Your task to perform on an android device: Open internet settings Image 0: 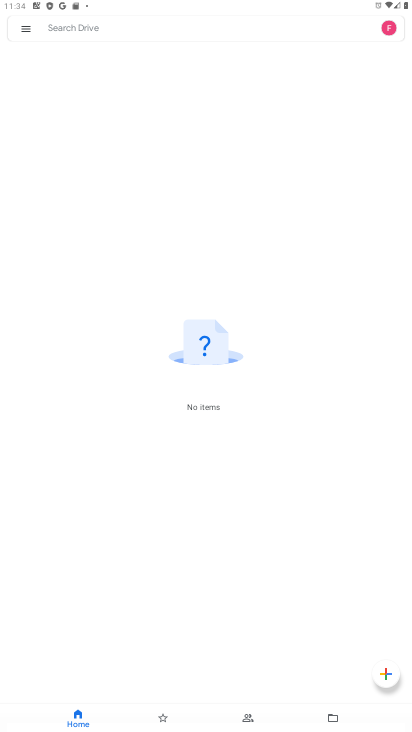
Step 0: press home button
Your task to perform on an android device: Open internet settings Image 1: 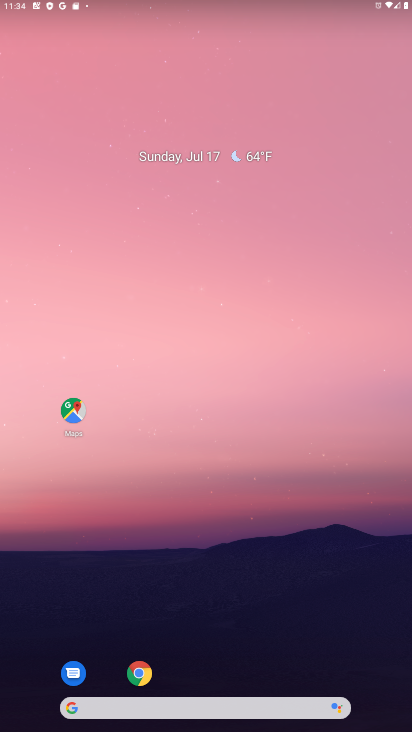
Step 1: drag from (215, 626) to (218, 82)
Your task to perform on an android device: Open internet settings Image 2: 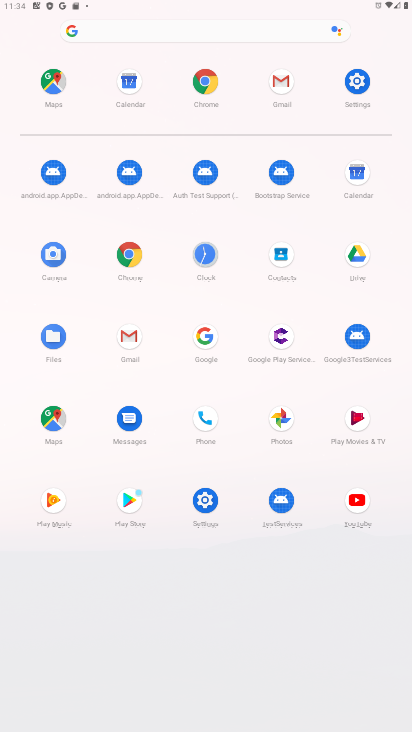
Step 2: click (356, 75)
Your task to perform on an android device: Open internet settings Image 3: 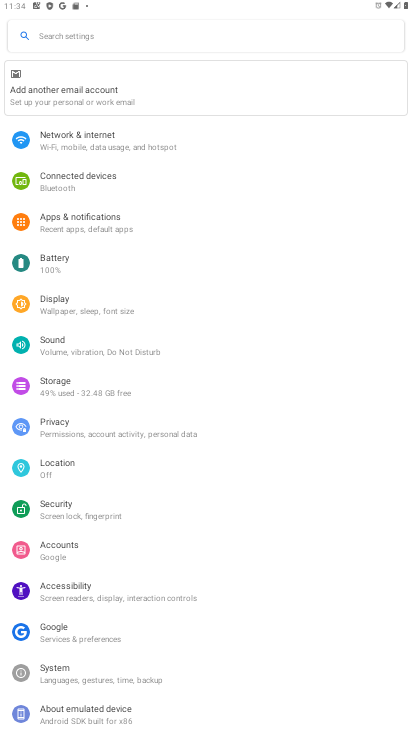
Step 3: click (101, 135)
Your task to perform on an android device: Open internet settings Image 4: 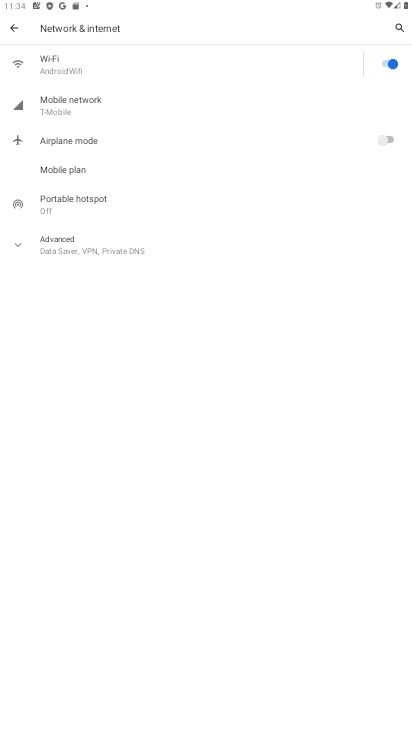
Step 4: click (66, 61)
Your task to perform on an android device: Open internet settings Image 5: 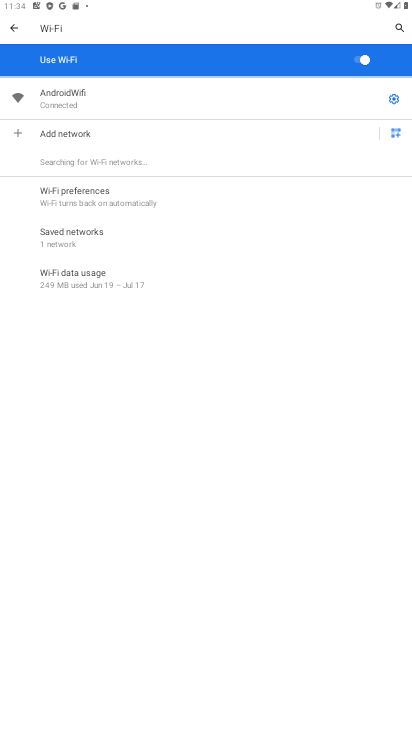
Step 5: click (181, 97)
Your task to perform on an android device: Open internet settings Image 6: 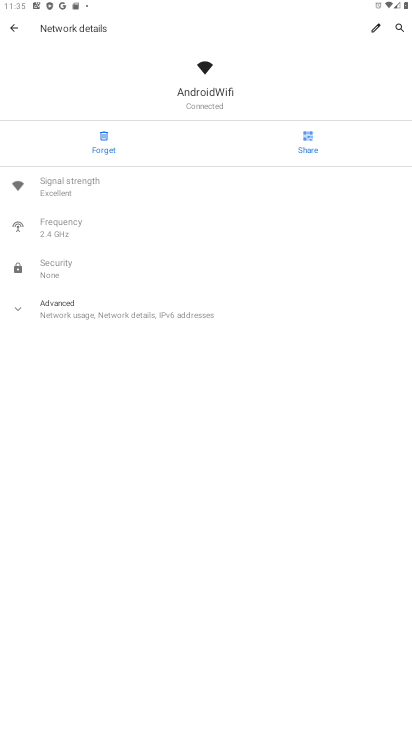
Step 6: task complete